Your task to perform on an android device: open wifi settings Image 0: 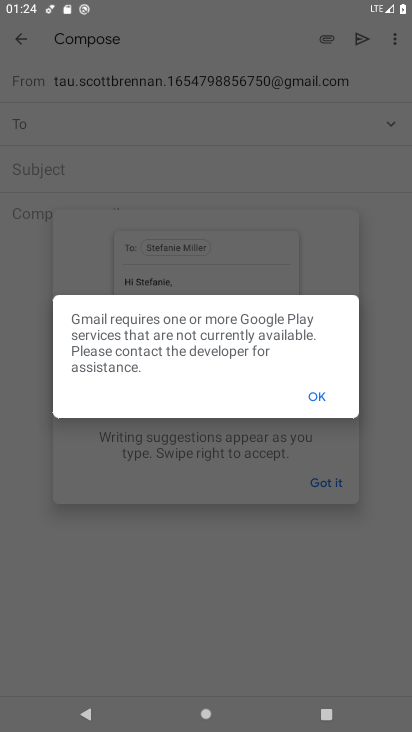
Step 0: press home button
Your task to perform on an android device: open wifi settings Image 1: 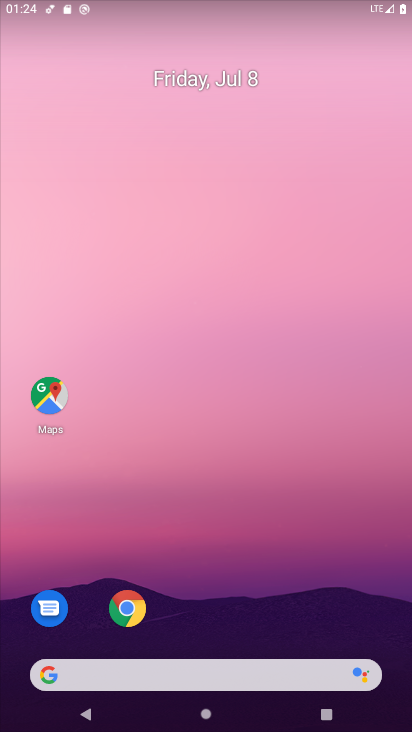
Step 1: drag from (246, 635) to (242, 234)
Your task to perform on an android device: open wifi settings Image 2: 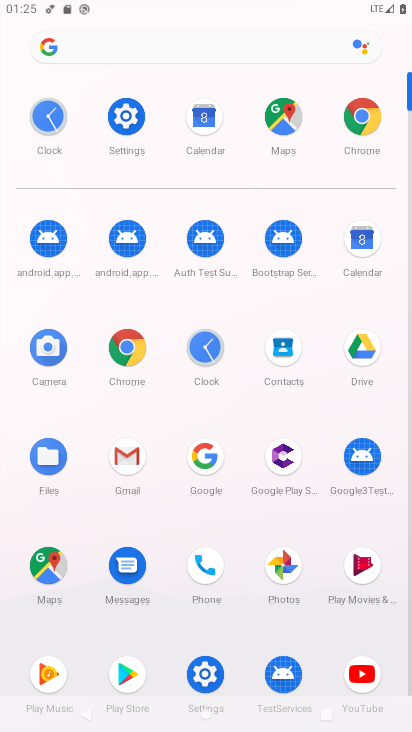
Step 2: click (130, 107)
Your task to perform on an android device: open wifi settings Image 3: 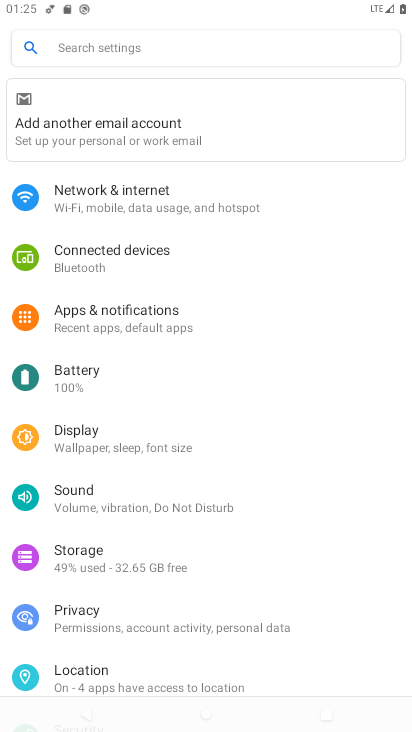
Step 3: click (121, 206)
Your task to perform on an android device: open wifi settings Image 4: 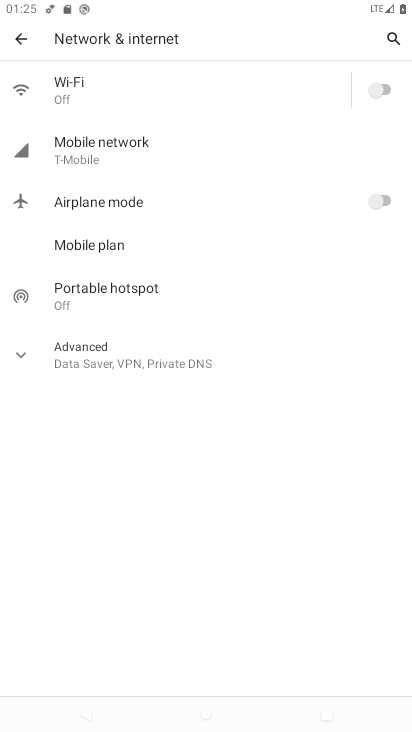
Step 4: click (68, 108)
Your task to perform on an android device: open wifi settings Image 5: 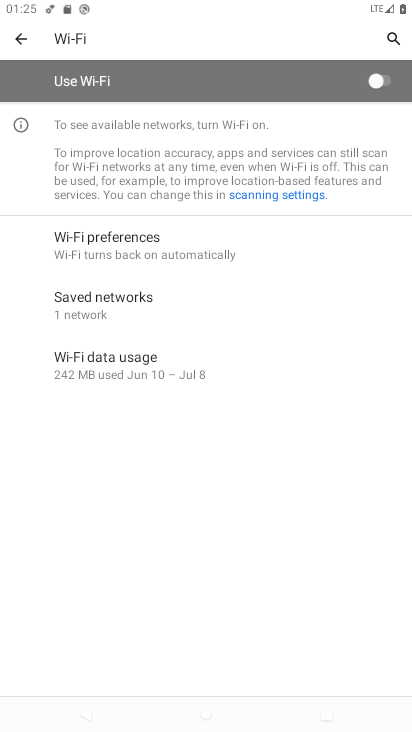
Step 5: task complete